Your task to perform on an android device: turn on translation in the chrome app Image 0: 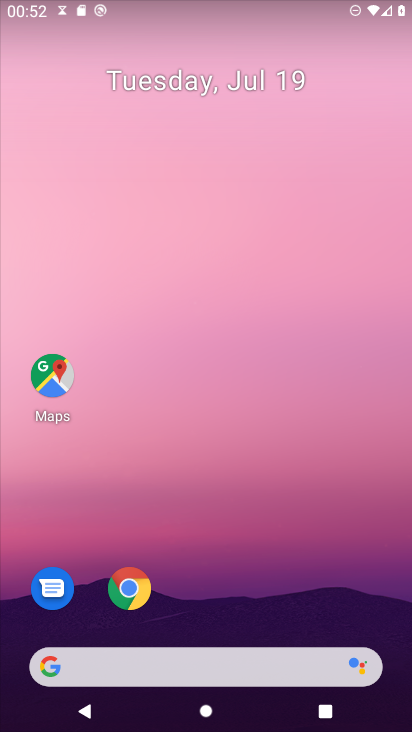
Step 0: press home button
Your task to perform on an android device: turn on translation in the chrome app Image 1: 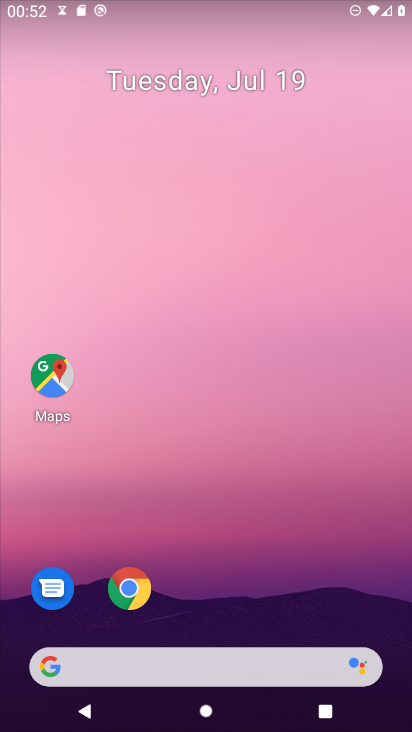
Step 1: click (128, 591)
Your task to perform on an android device: turn on translation in the chrome app Image 2: 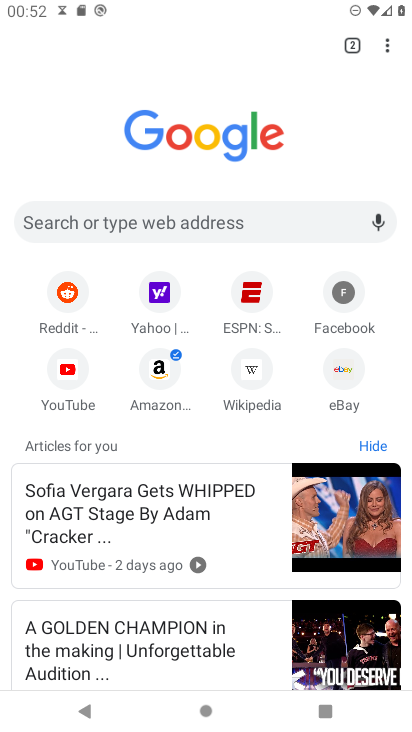
Step 2: click (391, 41)
Your task to perform on an android device: turn on translation in the chrome app Image 3: 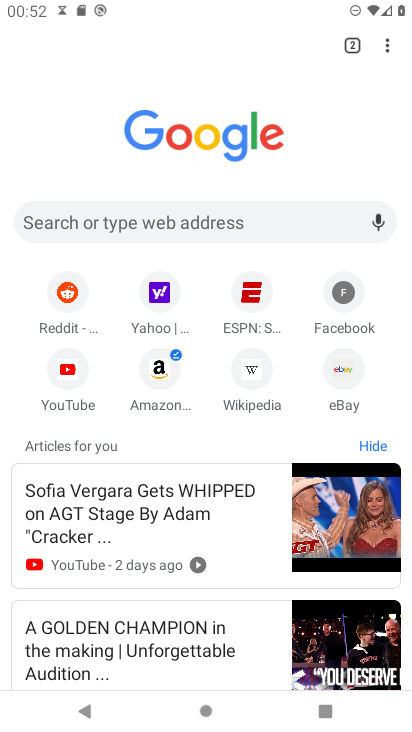
Step 3: click (384, 44)
Your task to perform on an android device: turn on translation in the chrome app Image 4: 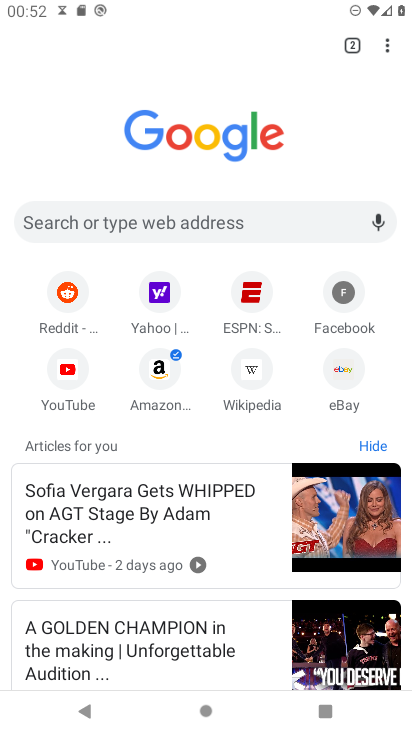
Step 4: drag from (388, 45) to (258, 380)
Your task to perform on an android device: turn on translation in the chrome app Image 5: 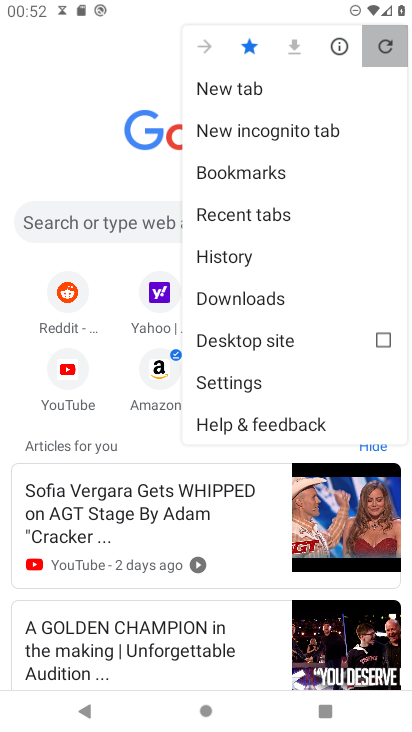
Step 5: click (257, 381)
Your task to perform on an android device: turn on translation in the chrome app Image 6: 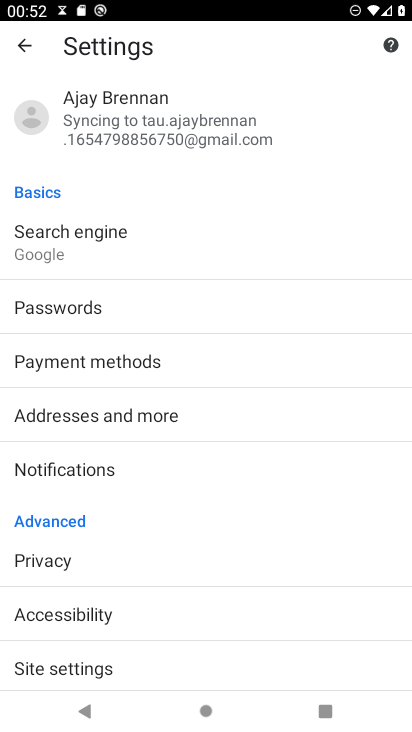
Step 6: drag from (142, 513) to (228, 99)
Your task to perform on an android device: turn on translation in the chrome app Image 7: 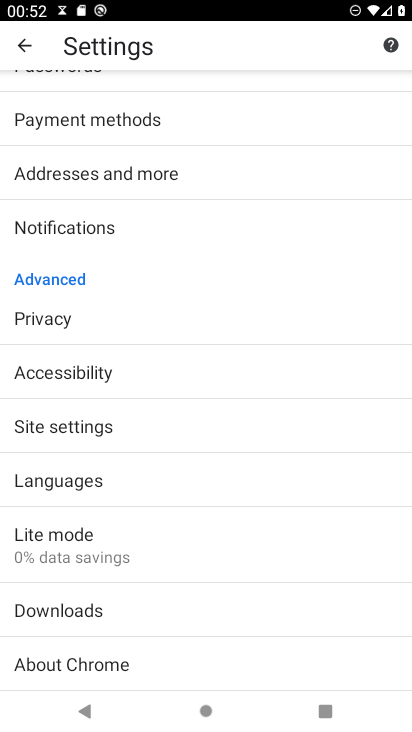
Step 7: click (82, 472)
Your task to perform on an android device: turn on translation in the chrome app Image 8: 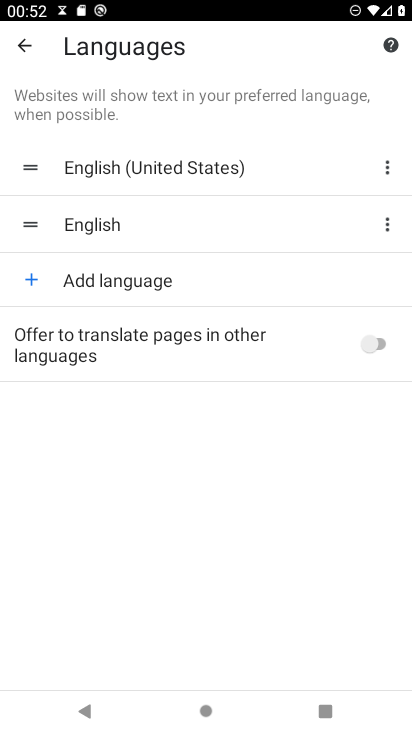
Step 8: click (369, 339)
Your task to perform on an android device: turn on translation in the chrome app Image 9: 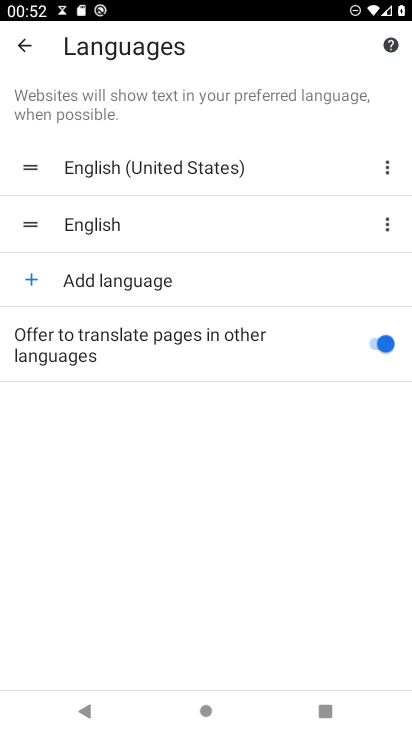
Step 9: task complete